Your task to perform on an android device: Open CNN.com Image 0: 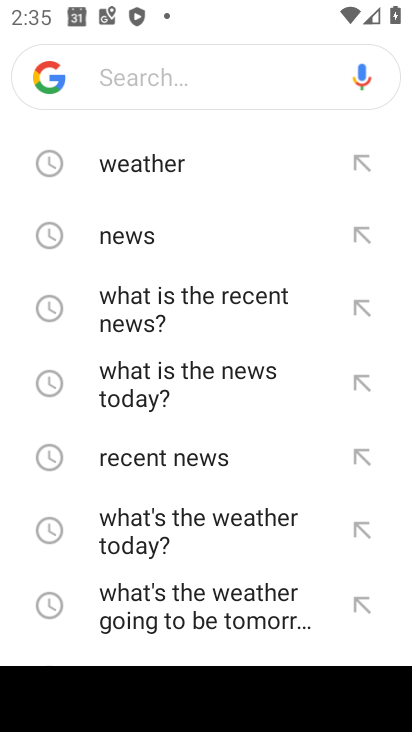
Step 0: press home button
Your task to perform on an android device: Open CNN.com Image 1: 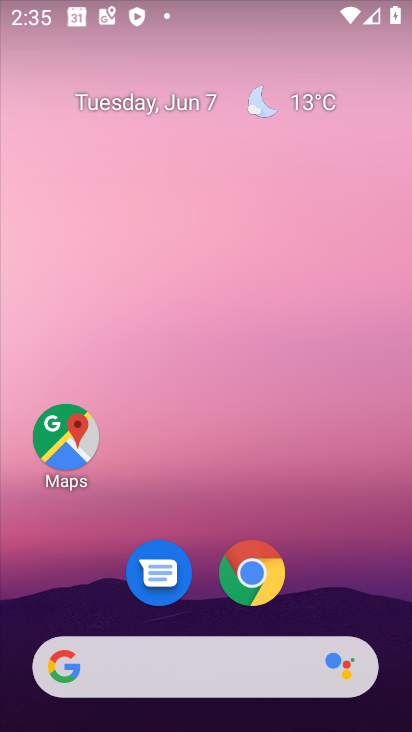
Step 1: click (243, 585)
Your task to perform on an android device: Open CNN.com Image 2: 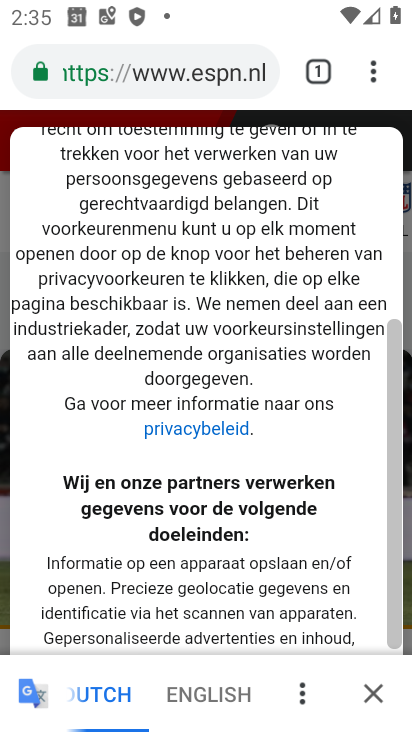
Step 2: click (161, 73)
Your task to perform on an android device: Open CNN.com Image 3: 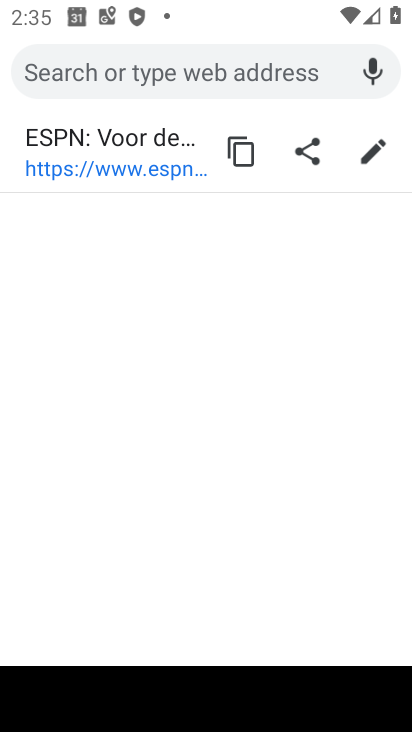
Step 3: type "CNN.com"
Your task to perform on an android device: Open CNN.com Image 4: 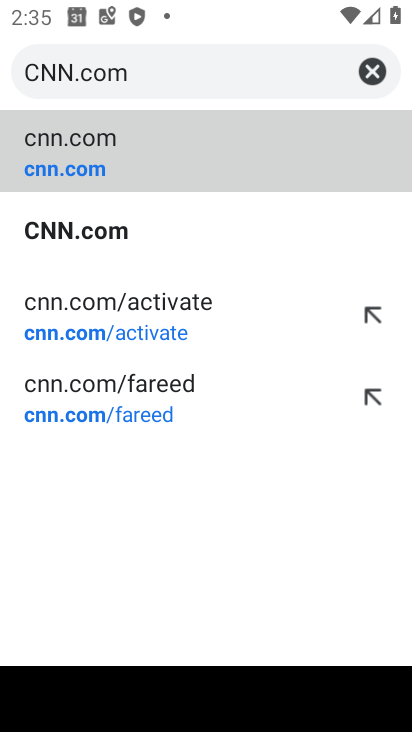
Step 4: click (69, 154)
Your task to perform on an android device: Open CNN.com Image 5: 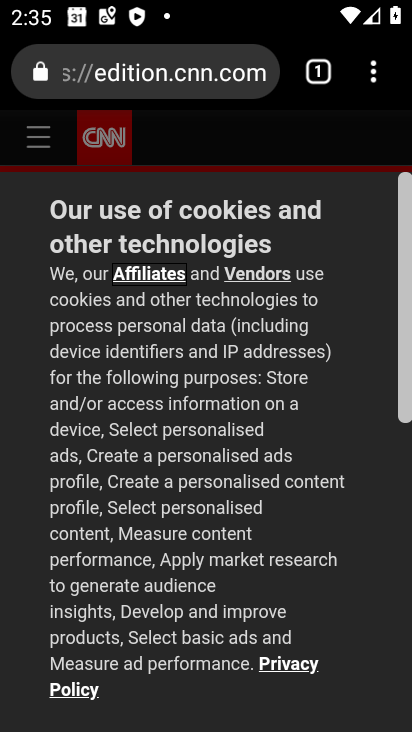
Step 5: task complete